Your task to perform on an android device: check the backup settings in the google photos Image 0: 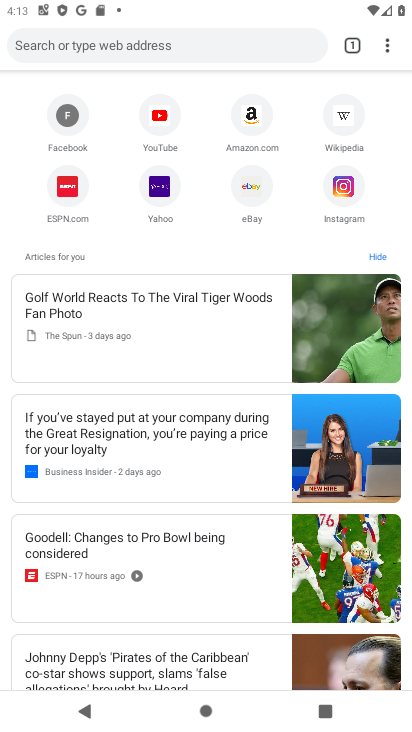
Step 0: press home button
Your task to perform on an android device: check the backup settings in the google photos Image 1: 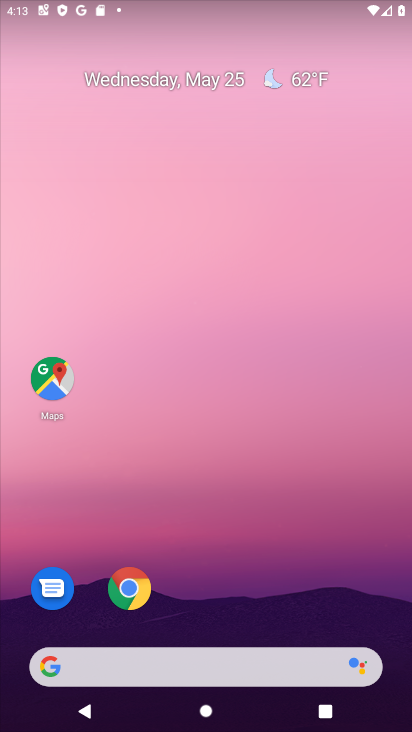
Step 1: drag from (225, 614) to (179, 197)
Your task to perform on an android device: check the backup settings in the google photos Image 2: 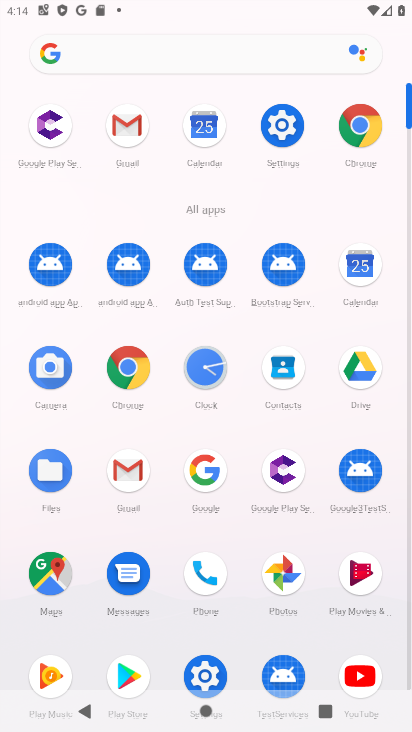
Step 2: click (269, 571)
Your task to perform on an android device: check the backup settings in the google photos Image 3: 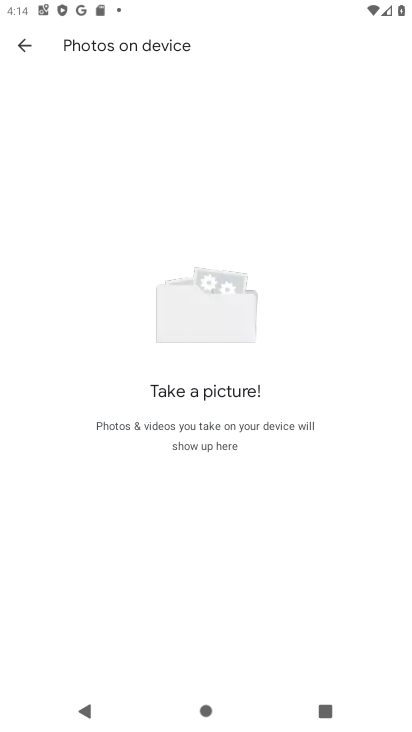
Step 3: press back button
Your task to perform on an android device: check the backup settings in the google photos Image 4: 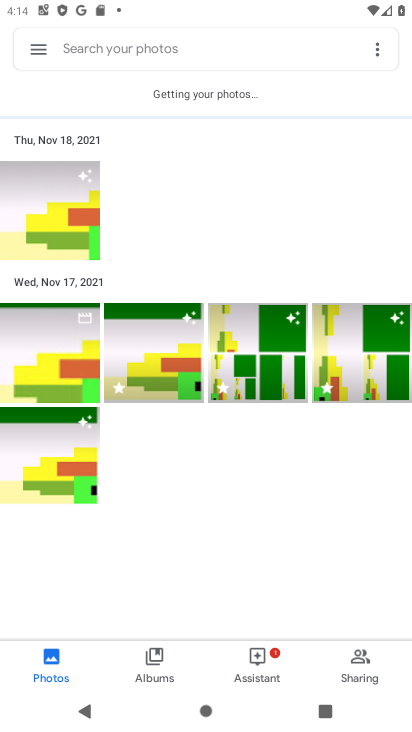
Step 4: click (33, 51)
Your task to perform on an android device: check the backup settings in the google photos Image 5: 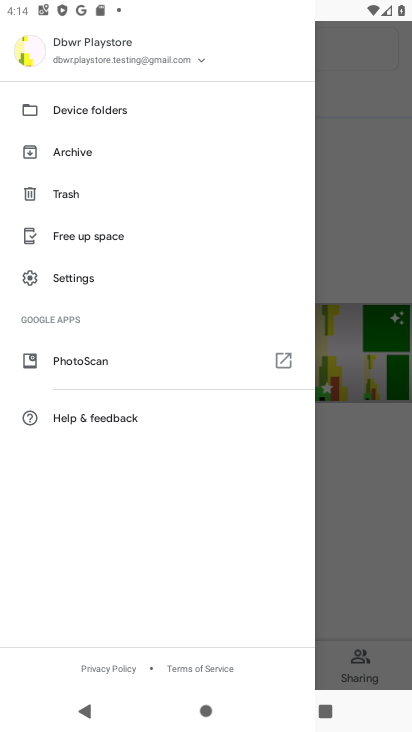
Step 5: click (92, 277)
Your task to perform on an android device: check the backup settings in the google photos Image 6: 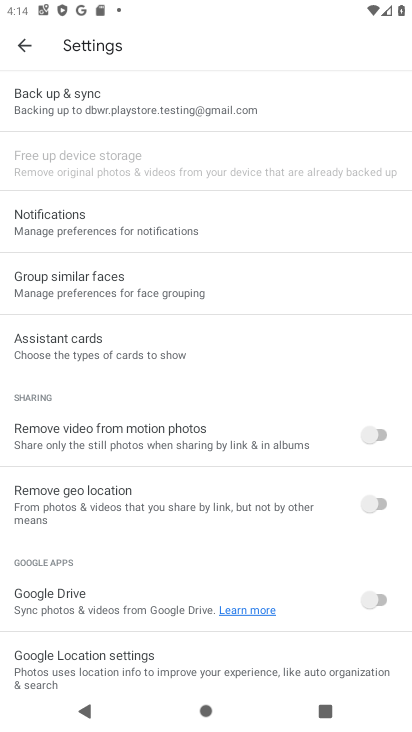
Step 6: click (137, 115)
Your task to perform on an android device: check the backup settings in the google photos Image 7: 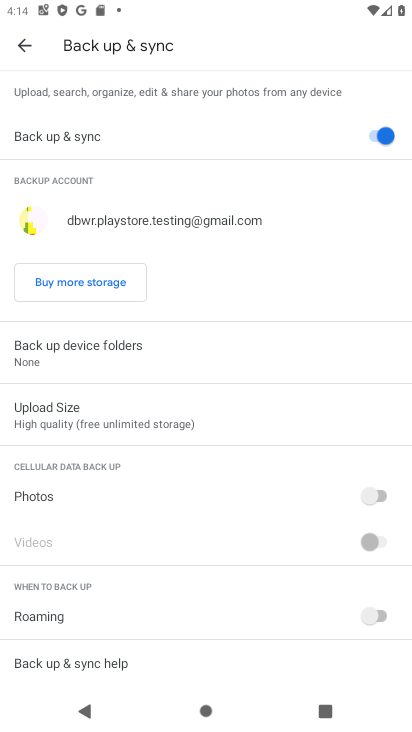
Step 7: task complete